Your task to perform on an android device: open a new tab in the chrome app Image 0: 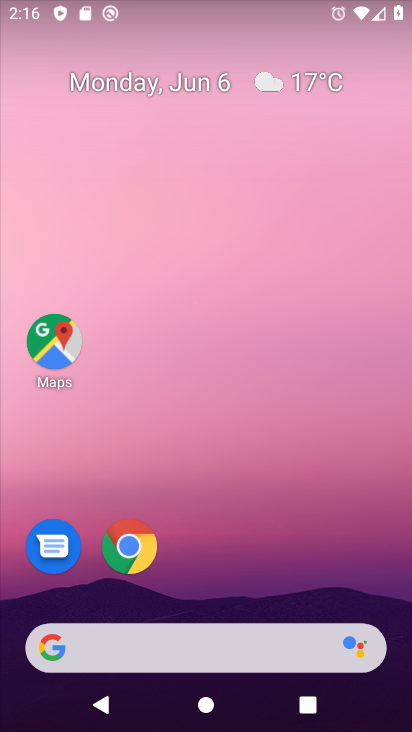
Step 0: click (133, 555)
Your task to perform on an android device: open a new tab in the chrome app Image 1: 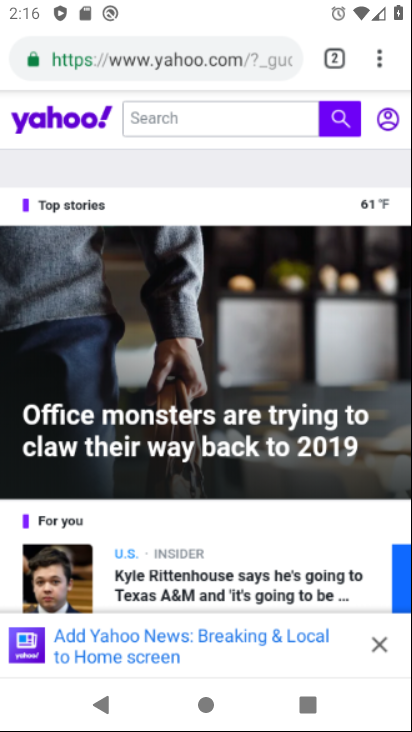
Step 1: click (362, 56)
Your task to perform on an android device: open a new tab in the chrome app Image 2: 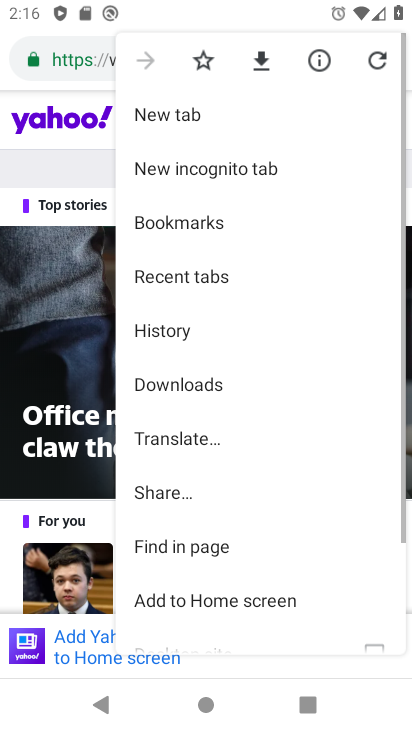
Step 2: click (203, 106)
Your task to perform on an android device: open a new tab in the chrome app Image 3: 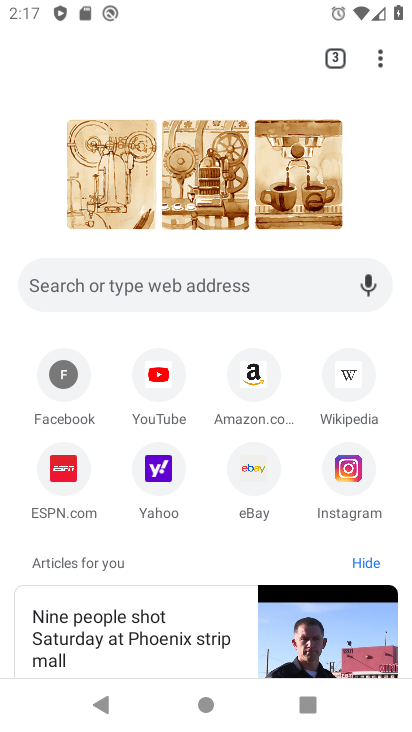
Step 3: task complete